Your task to perform on an android device: turn off improve location accuracy Image 0: 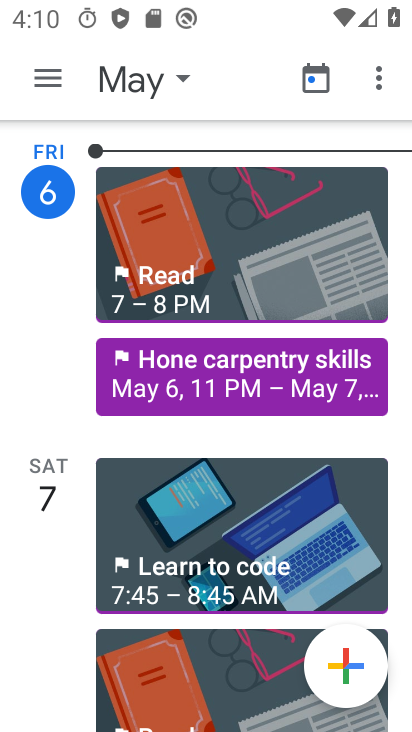
Step 0: press home button
Your task to perform on an android device: turn off improve location accuracy Image 1: 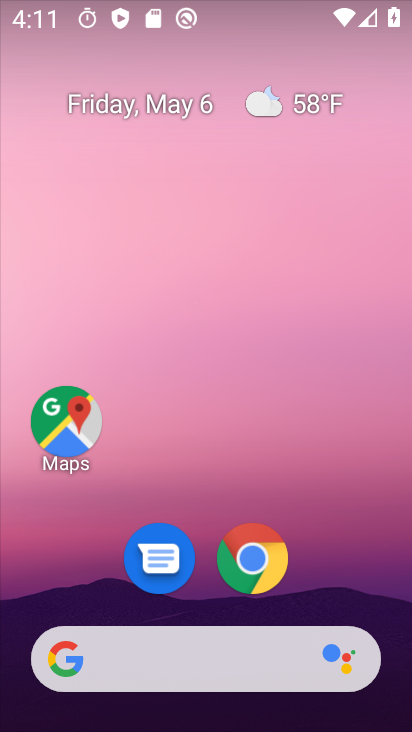
Step 1: drag from (355, 660) to (364, 41)
Your task to perform on an android device: turn off improve location accuracy Image 2: 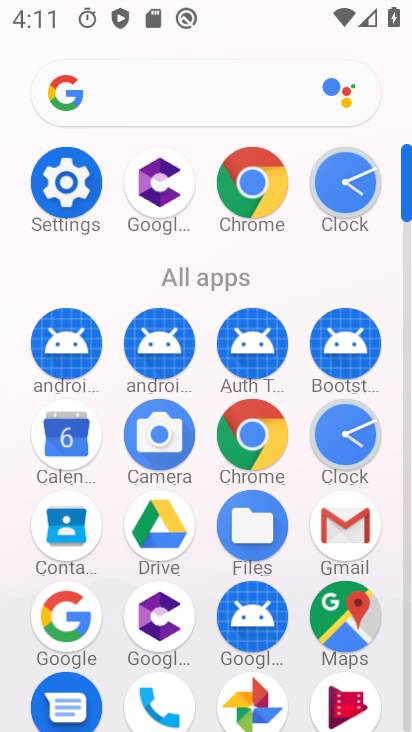
Step 2: click (56, 212)
Your task to perform on an android device: turn off improve location accuracy Image 3: 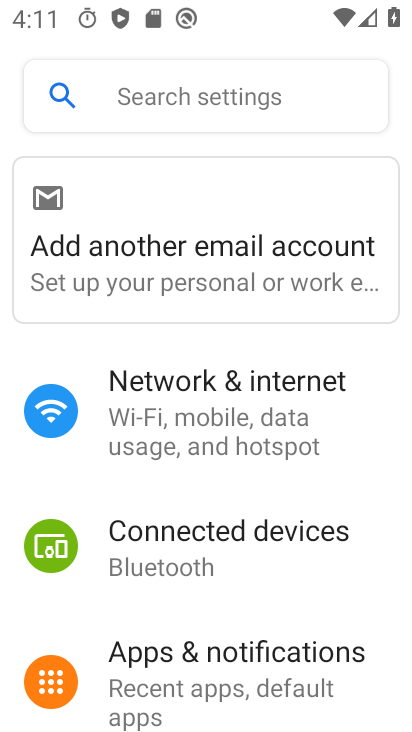
Step 3: drag from (292, 670) to (265, 101)
Your task to perform on an android device: turn off improve location accuracy Image 4: 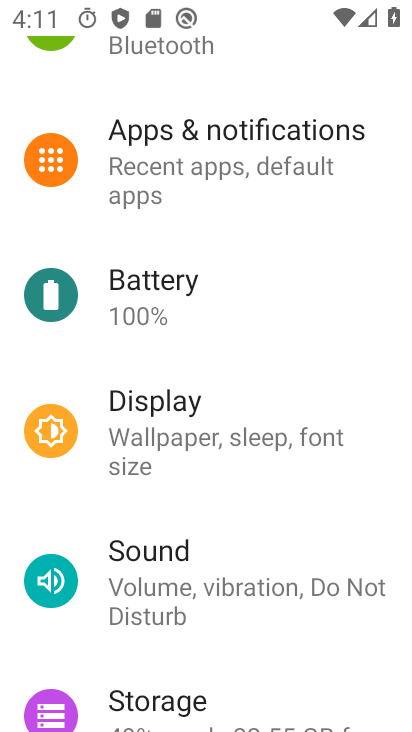
Step 4: drag from (223, 684) to (240, 208)
Your task to perform on an android device: turn off improve location accuracy Image 5: 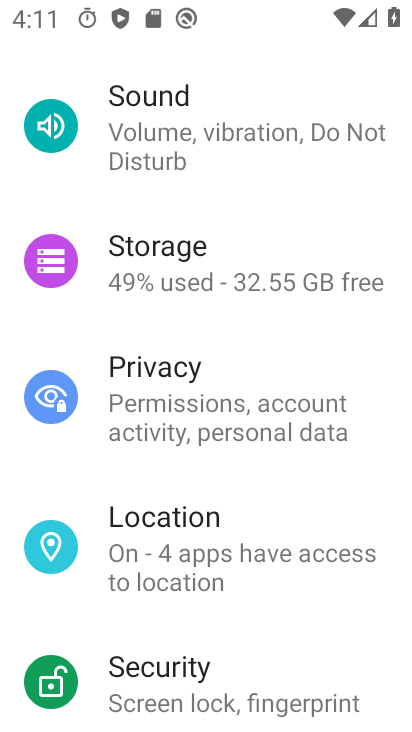
Step 5: click (227, 580)
Your task to perform on an android device: turn off improve location accuracy Image 6: 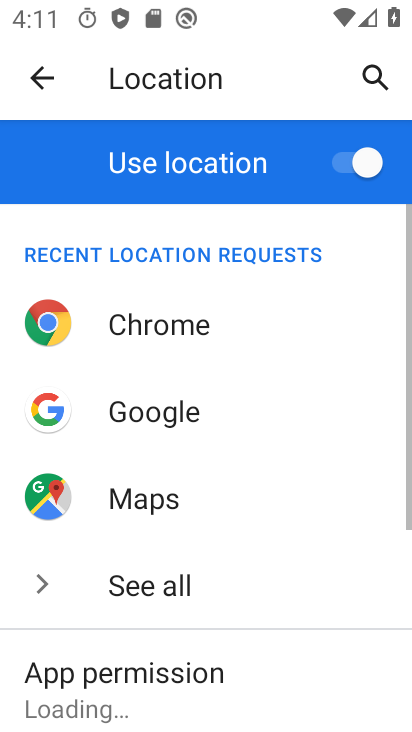
Step 6: drag from (289, 694) to (316, 183)
Your task to perform on an android device: turn off improve location accuracy Image 7: 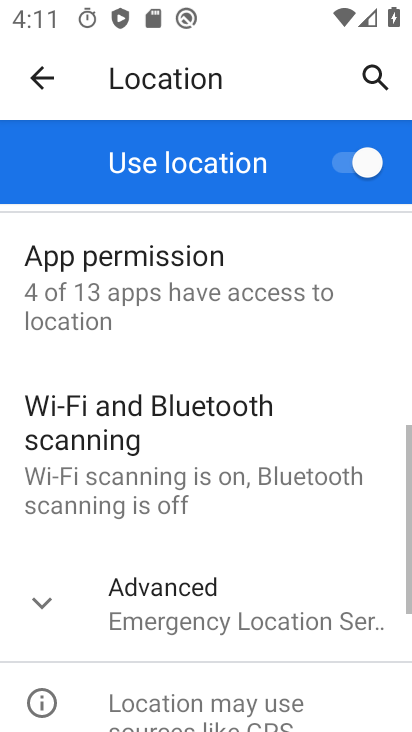
Step 7: click (253, 593)
Your task to perform on an android device: turn off improve location accuracy Image 8: 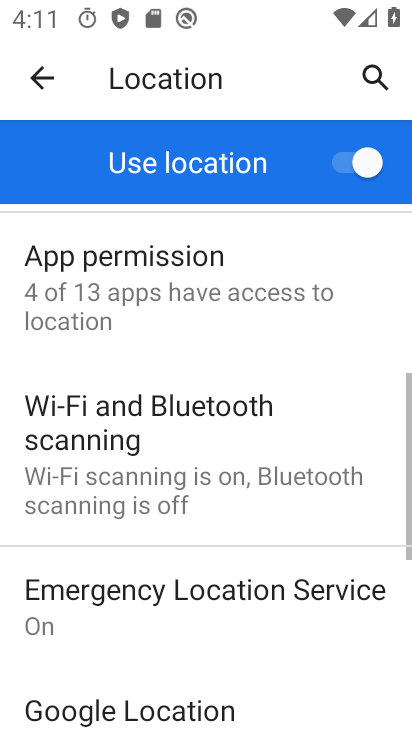
Step 8: drag from (304, 702) to (301, 155)
Your task to perform on an android device: turn off improve location accuracy Image 9: 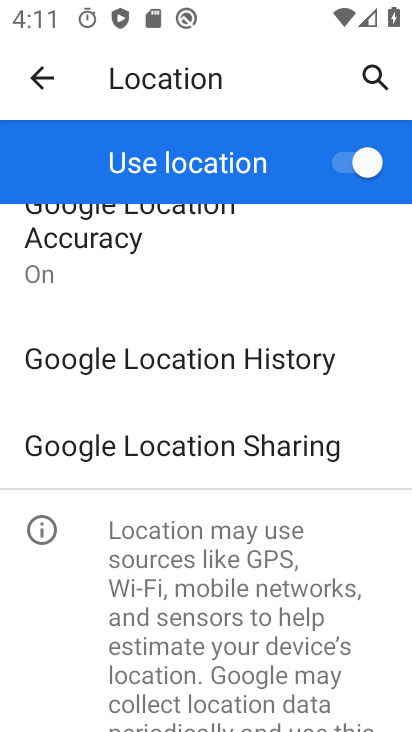
Step 9: click (200, 239)
Your task to perform on an android device: turn off improve location accuracy Image 10: 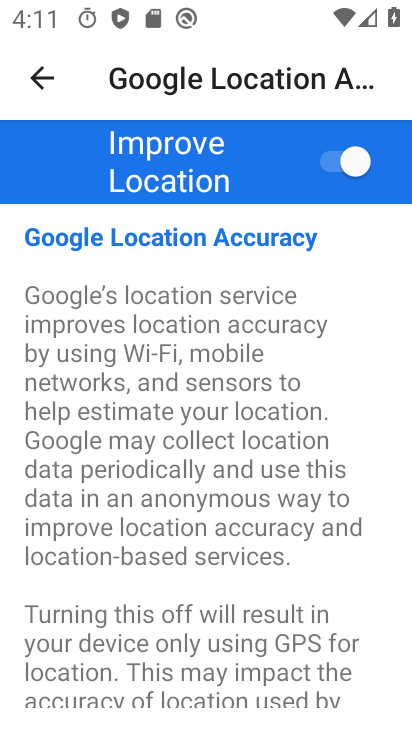
Step 10: click (343, 164)
Your task to perform on an android device: turn off improve location accuracy Image 11: 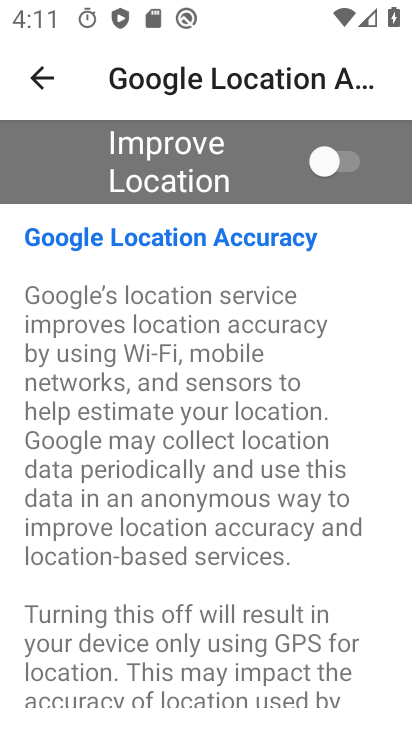
Step 11: task complete